Your task to perform on an android device: toggle improve location accuracy Image 0: 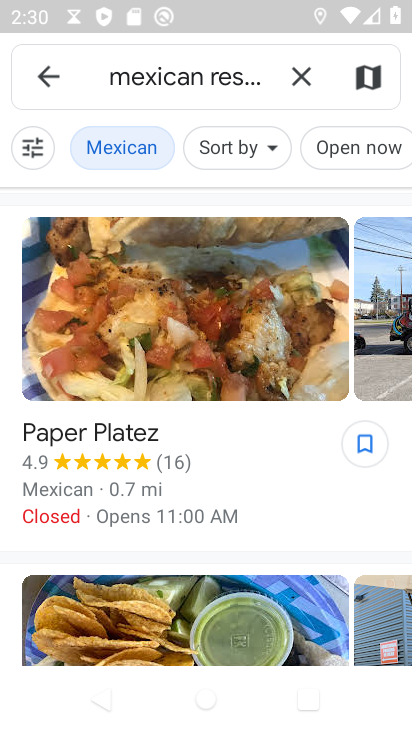
Step 0: press home button
Your task to perform on an android device: toggle improve location accuracy Image 1: 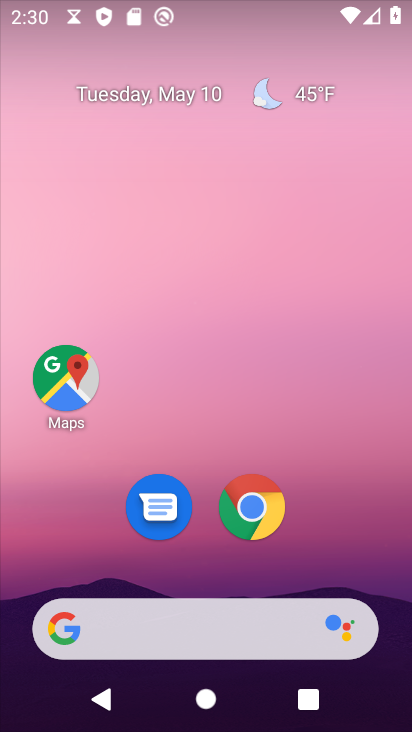
Step 1: drag from (308, 569) to (92, 55)
Your task to perform on an android device: toggle improve location accuracy Image 2: 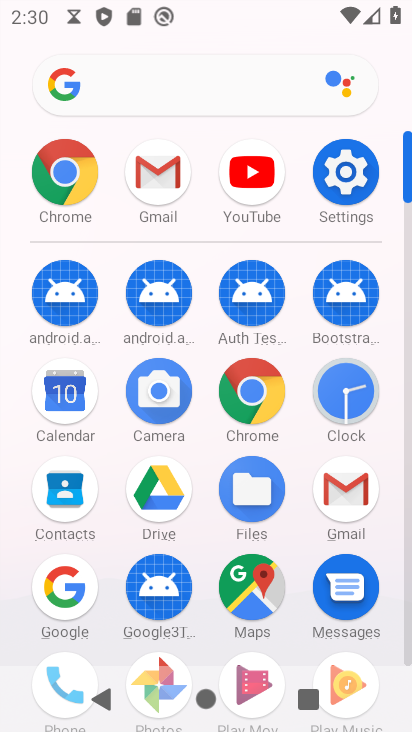
Step 2: click (344, 180)
Your task to perform on an android device: toggle improve location accuracy Image 3: 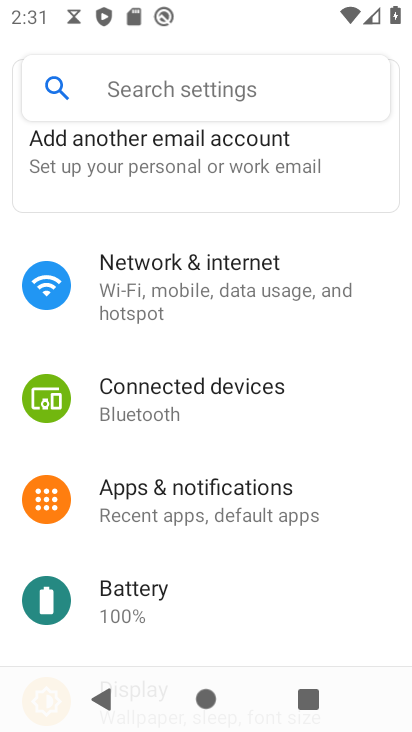
Step 3: drag from (224, 622) to (239, 166)
Your task to perform on an android device: toggle improve location accuracy Image 4: 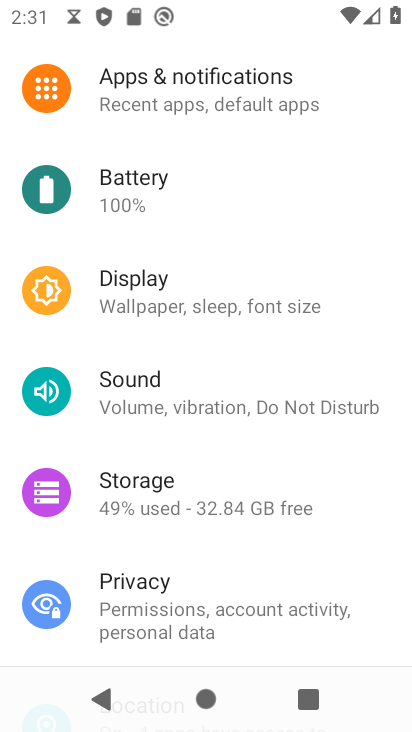
Step 4: drag from (300, 597) to (295, 256)
Your task to perform on an android device: toggle improve location accuracy Image 5: 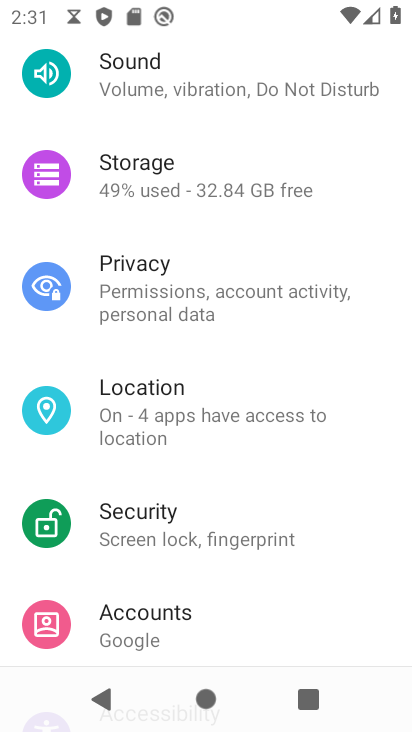
Step 5: click (168, 416)
Your task to perform on an android device: toggle improve location accuracy Image 6: 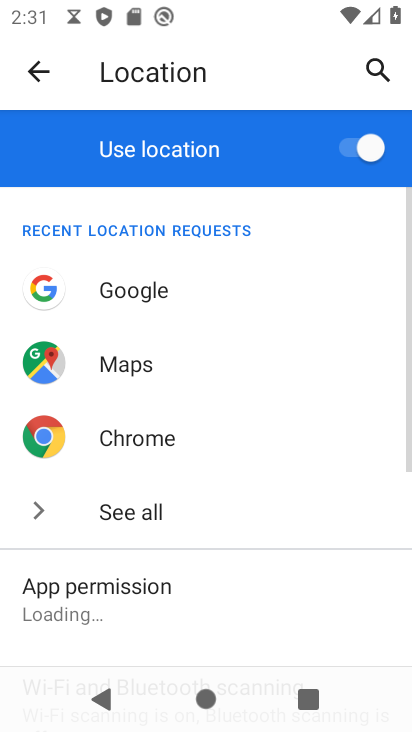
Step 6: drag from (178, 636) to (176, 259)
Your task to perform on an android device: toggle improve location accuracy Image 7: 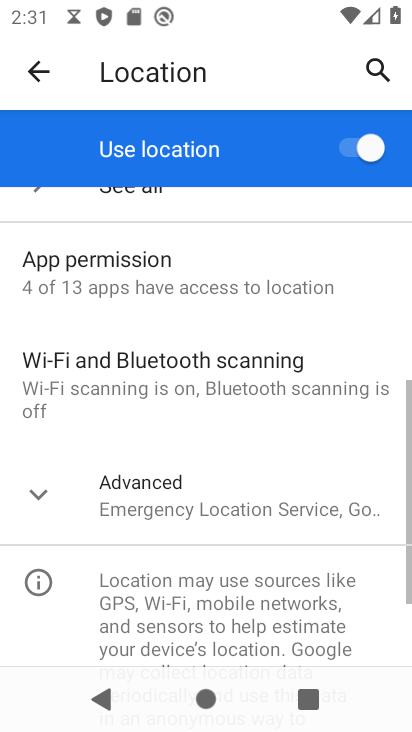
Step 7: click (188, 506)
Your task to perform on an android device: toggle improve location accuracy Image 8: 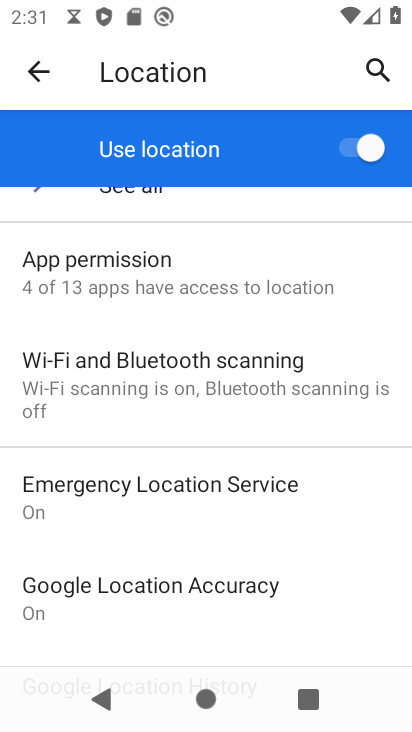
Step 8: click (186, 592)
Your task to perform on an android device: toggle improve location accuracy Image 9: 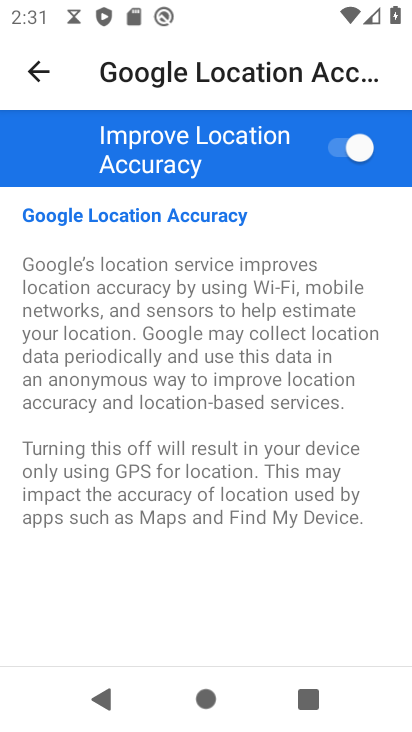
Step 9: task complete